Your task to perform on an android device: Open my contact list Image 0: 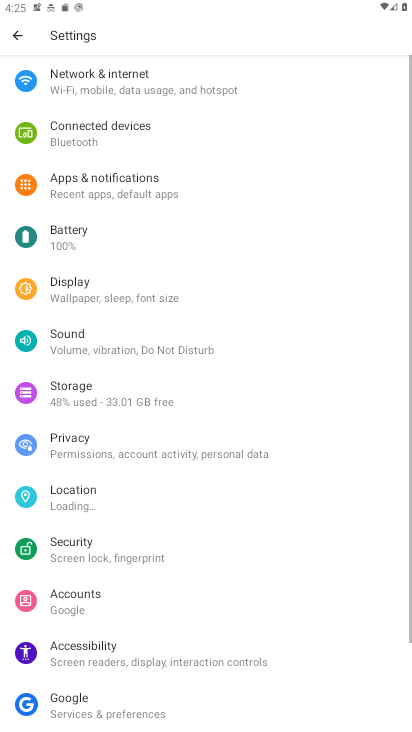
Step 0: press home button
Your task to perform on an android device: Open my contact list Image 1: 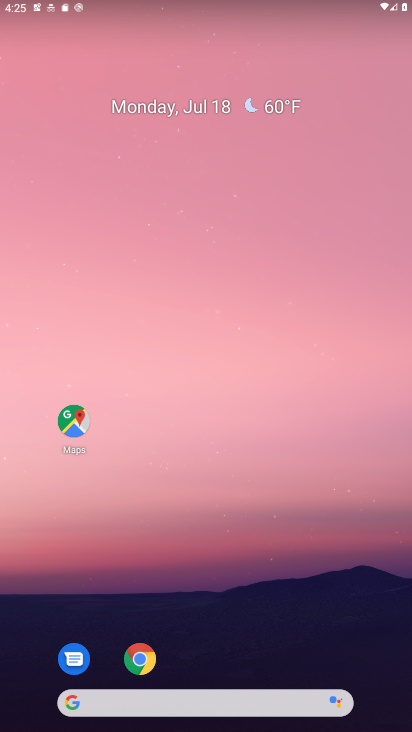
Step 1: drag from (295, 704) to (161, 515)
Your task to perform on an android device: Open my contact list Image 2: 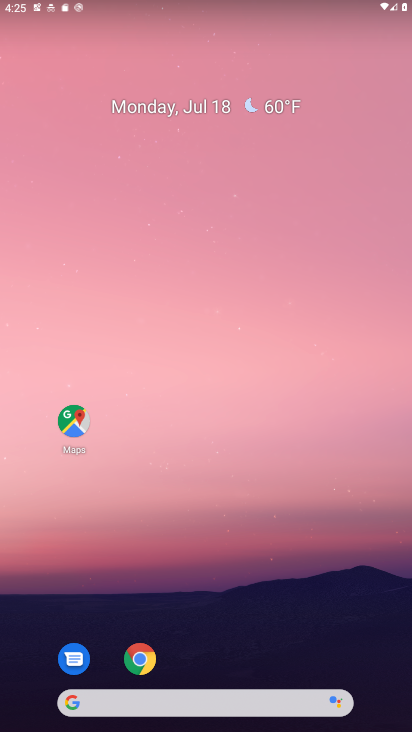
Step 2: drag from (211, 654) to (349, 12)
Your task to perform on an android device: Open my contact list Image 3: 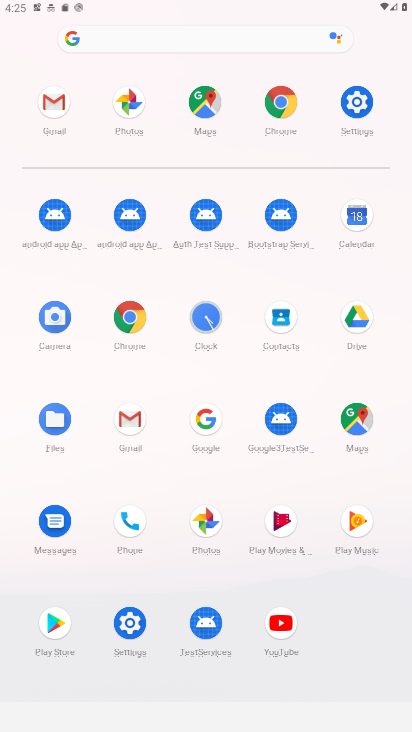
Step 3: click (278, 320)
Your task to perform on an android device: Open my contact list Image 4: 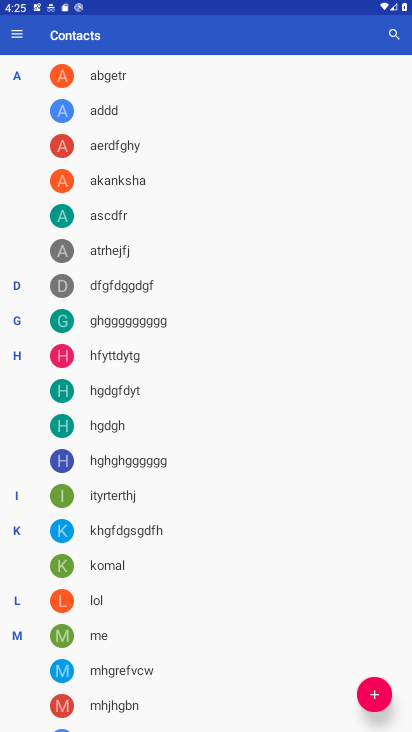
Step 4: click (372, 701)
Your task to perform on an android device: Open my contact list Image 5: 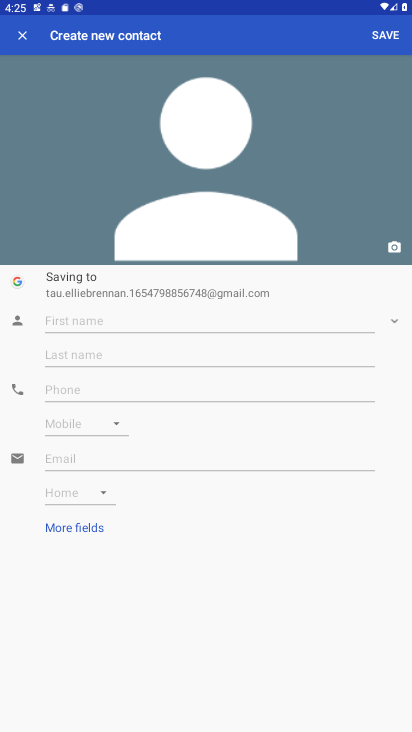
Step 5: type "marine"
Your task to perform on an android device: Open my contact list Image 6: 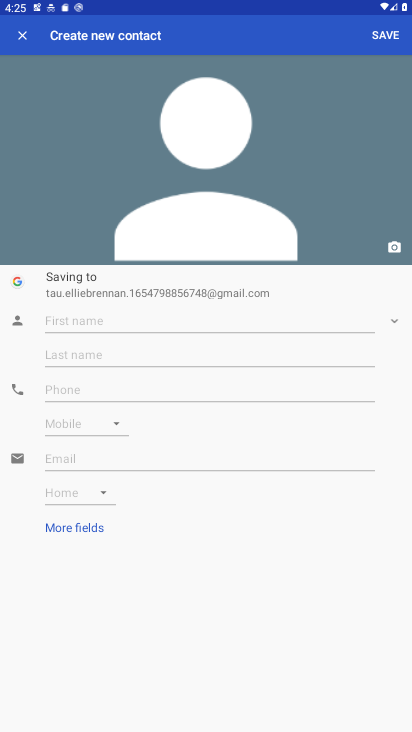
Step 6: click (120, 311)
Your task to perform on an android device: Open my contact list Image 7: 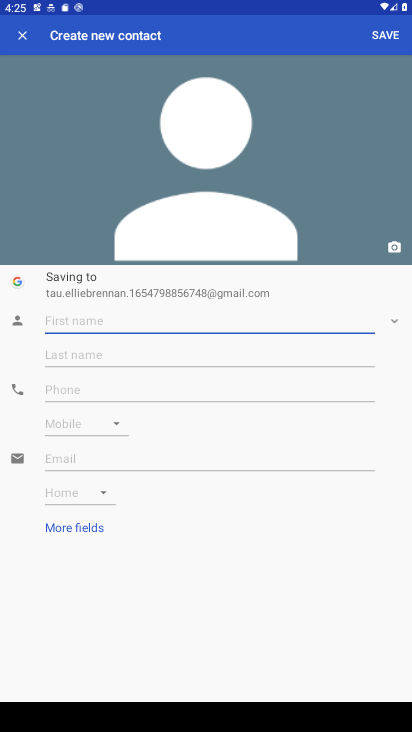
Step 7: type "marine"
Your task to perform on an android device: Open my contact list Image 8: 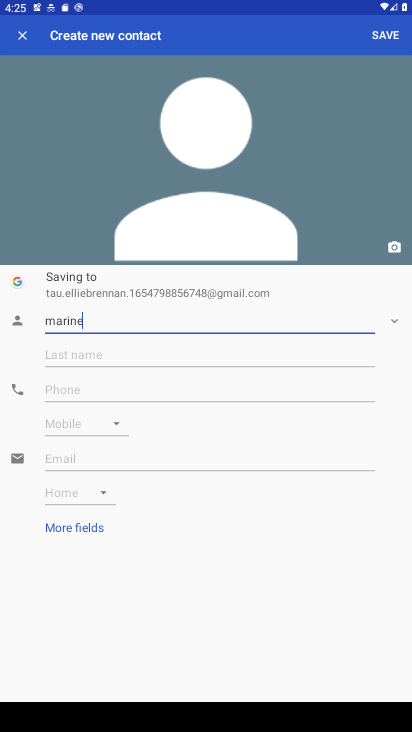
Step 8: click (173, 391)
Your task to perform on an android device: Open my contact list Image 9: 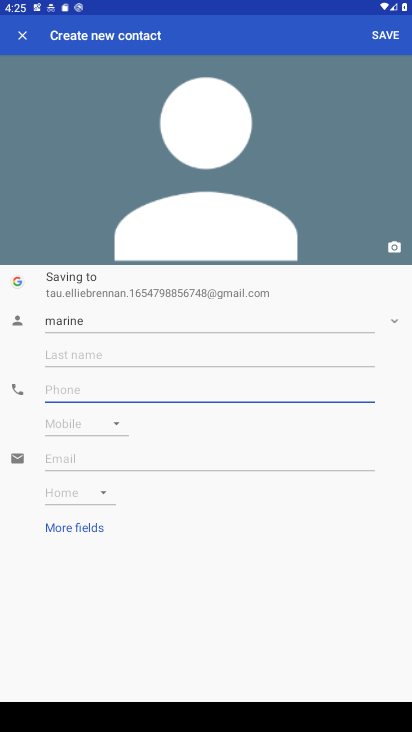
Step 9: type "9878987865"
Your task to perform on an android device: Open my contact list Image 10: 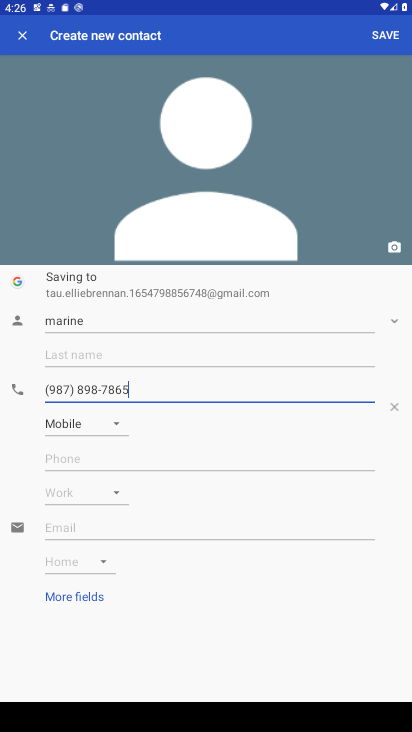
Step 10: click (383, 37)
Your task to perform on an android device: Open my contact list Image 11: 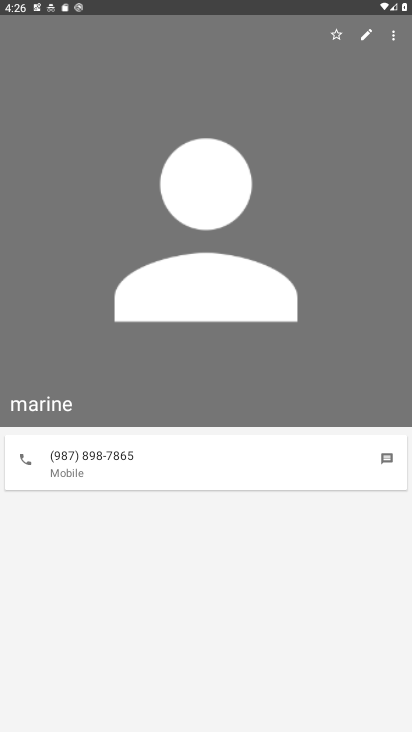
Step 11: task complete